Your task to perform on an android device: show emergency info Image 0: 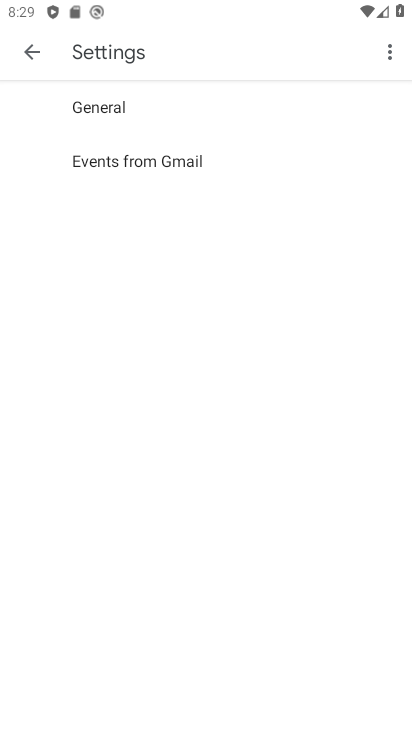
Step 0: press home button
Your task to perform on an android device: show emergency info Image 1: 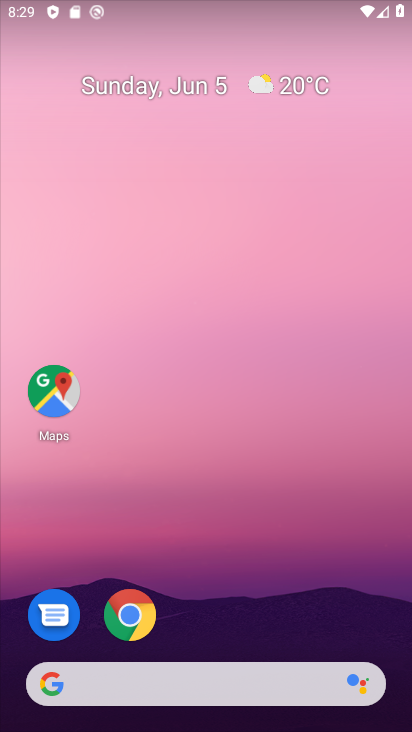
Step 1: drag from (163, 705) to (242, 9)
Your task to perform on an android device: show emergency info Image 2: 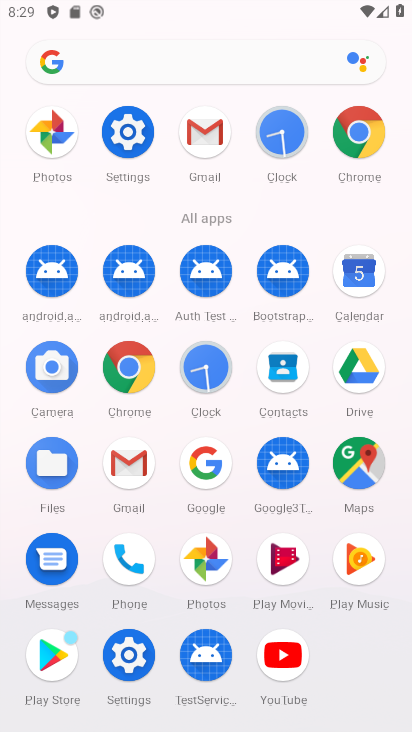
Step 2: click (120, 647)
Your task to perform on an android device: show emergency info Image 3: 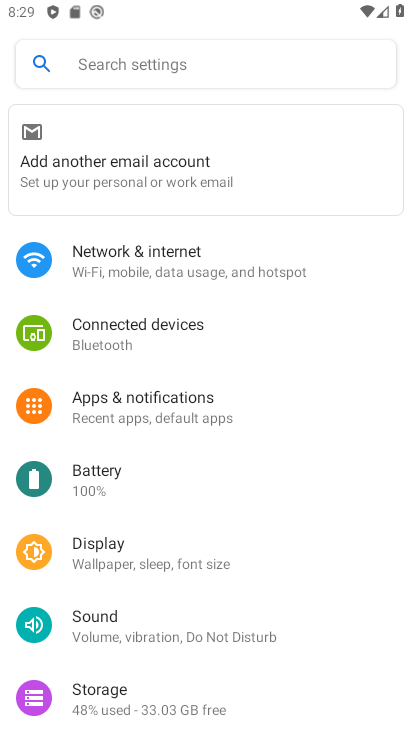
Step 3: drag from (234, 652) to (251, 216)
Your task to perform on an android device: show emergency info Image 4: 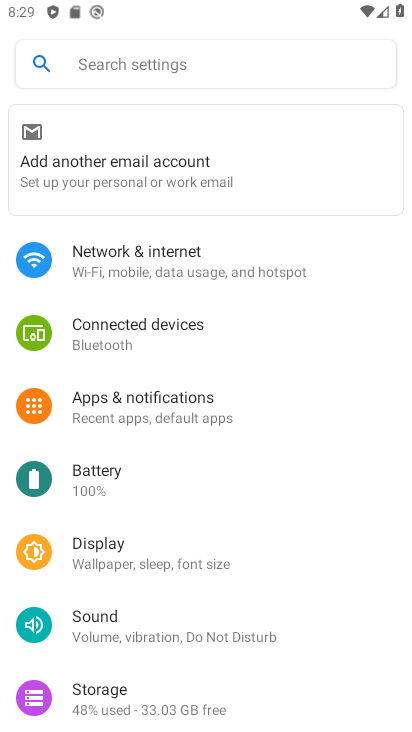
Step 4: drag from (278, 686) to (303, 134)
Your task to perform on an android device: show emergency info Image 5: 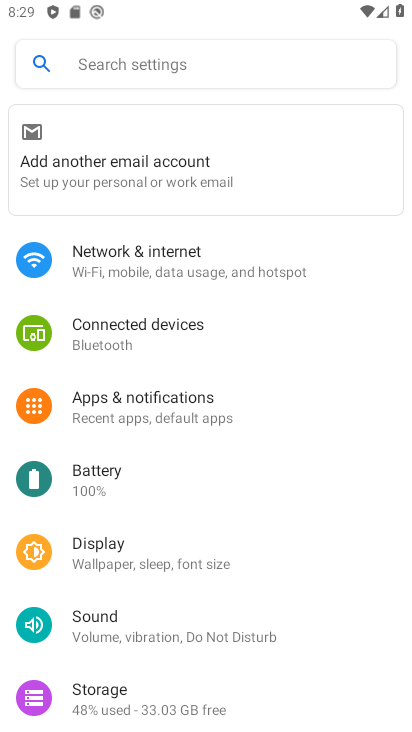
Step 5: drag from (356, 714) to (336, 96)
Your task to perform on an android device: show emergency info Image 6: 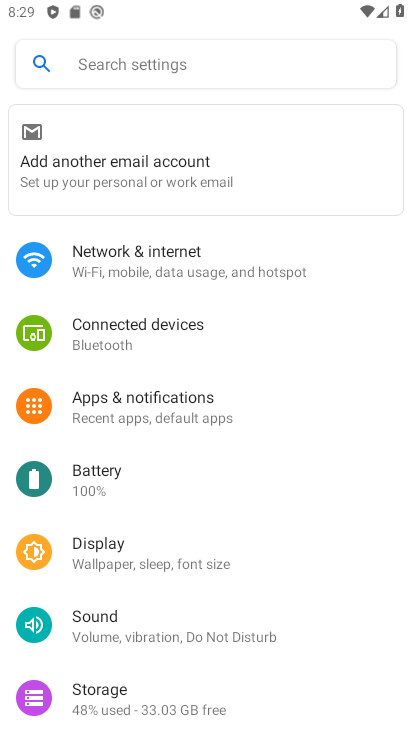
Step 6: drag from (254, 726) to (310, 116)
Your task to perform on an android device: show emergency info Image 7: 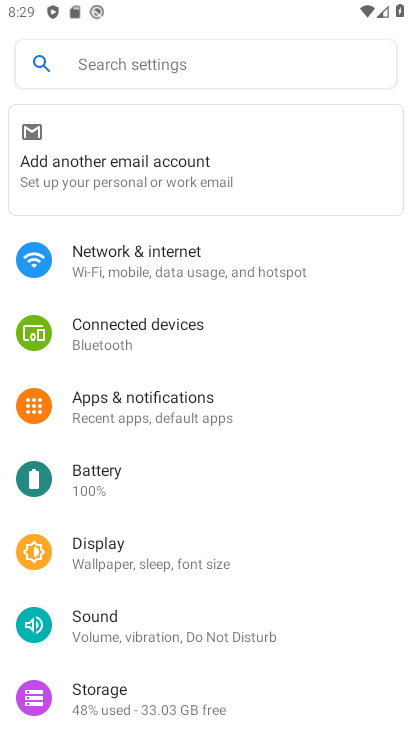
Step 7: drag from (233, 666) to (296, 109)
Your task to perform on an android device: show emergency info Image 8: 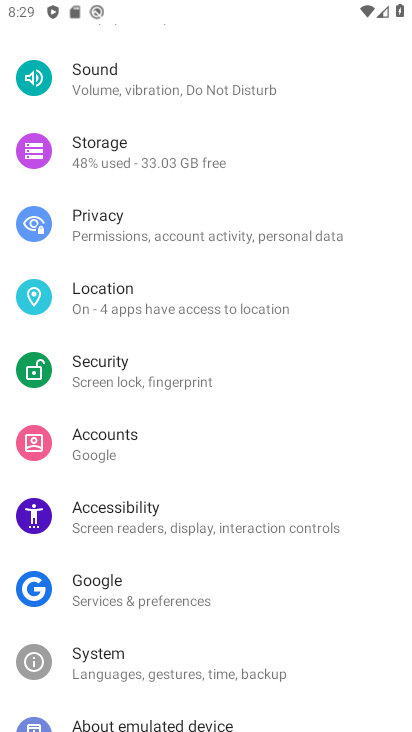
Step 8: click (183, 726)
Your task to perform on an android device: show emergency info Image 9: 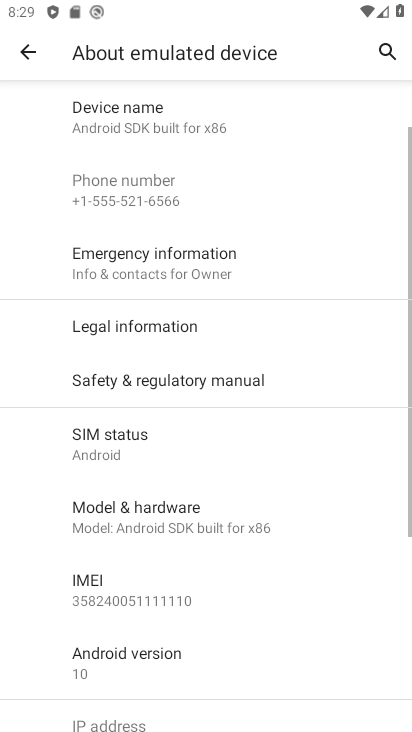
Step 9: click (180, 256)
Your task to perform on an android device: show emergency info Image 10: 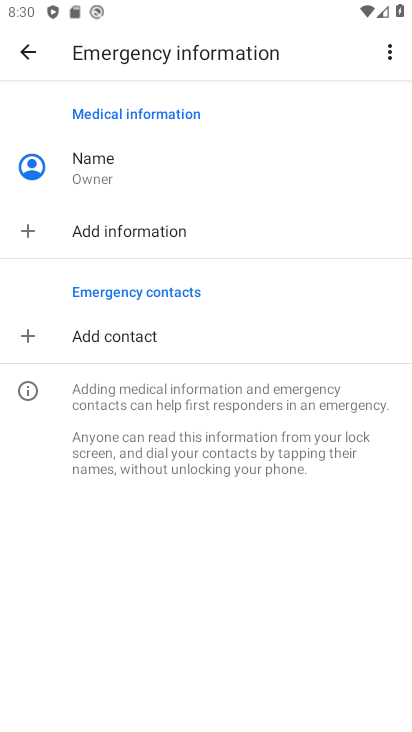
Step 10: task complete